Your task to perform on an android device: delete a single message in the gmail app Image 0: 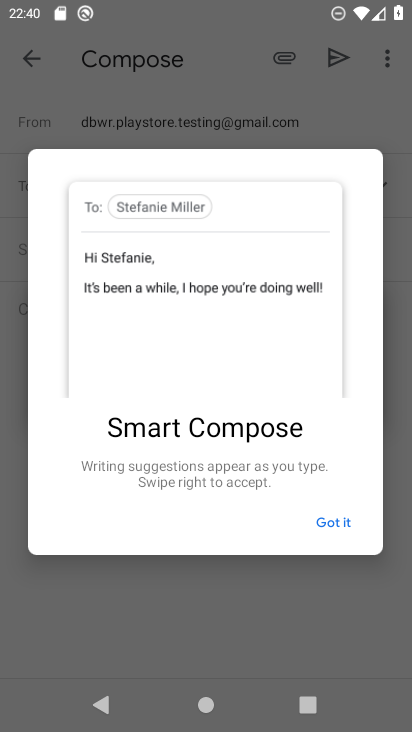
Step 0: press home button
Your task to perform on an android device: delete a single message in the gmail app Image 1: 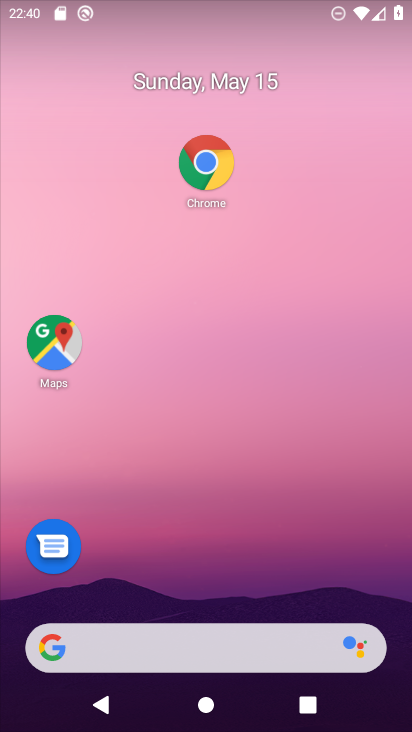
Step 1: drag from (290, 567) to (342, 210)
Your task to perform on an android device: delete a single message in the gmail app Image 2: 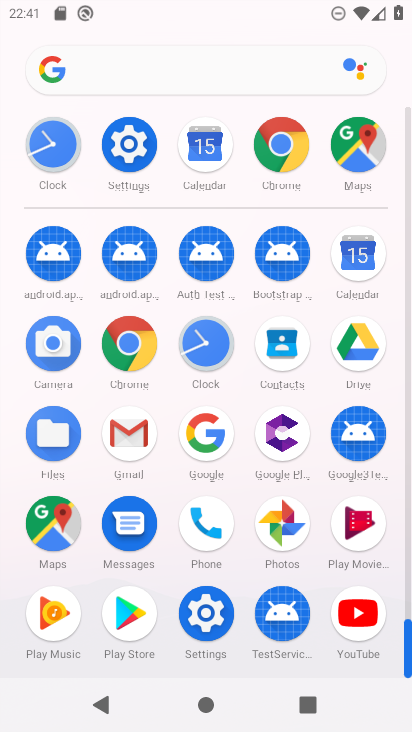
Step 2: drag from (300, 547) to (320, 262)
Your task to perform on an android device: delete a single message in the gmail app Image 3: 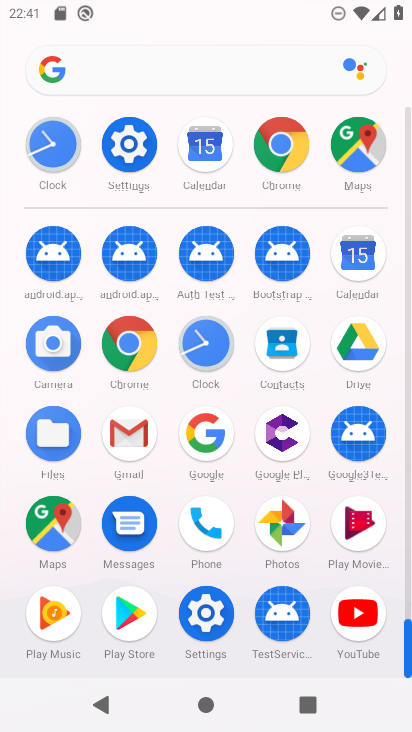
Step 3: click (125, 404)
Your task to perform on an android device: delete a single message in the gmail app Image 4: 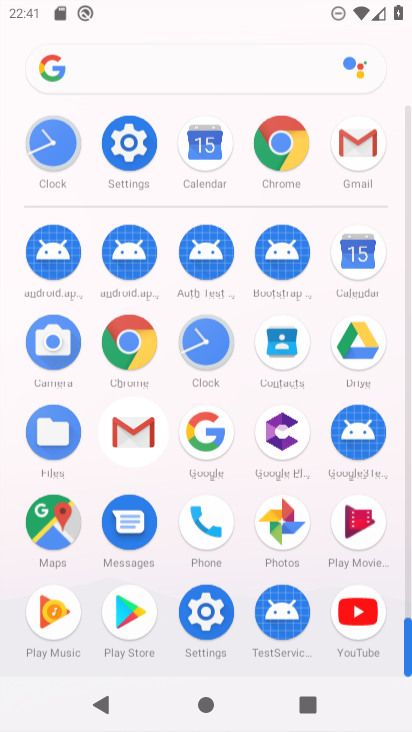
Step 4: click (121, 417)
Your task to perform on an android device: delete a single message in the gmail app Image 5: 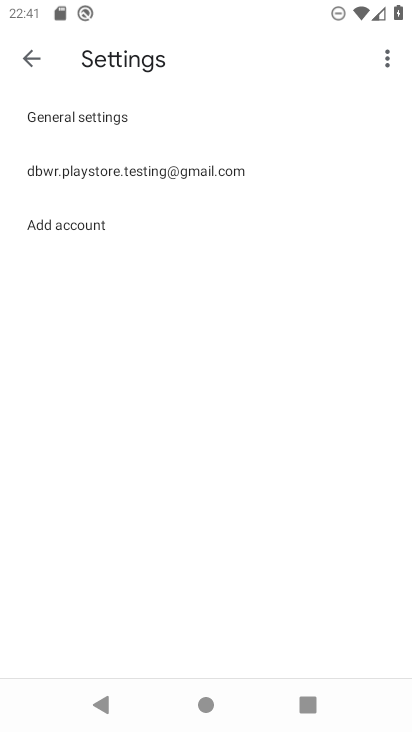
Step 5: click (33, 62)
Your task to perform on an android device: delete a single message in the gmail app Image 6: 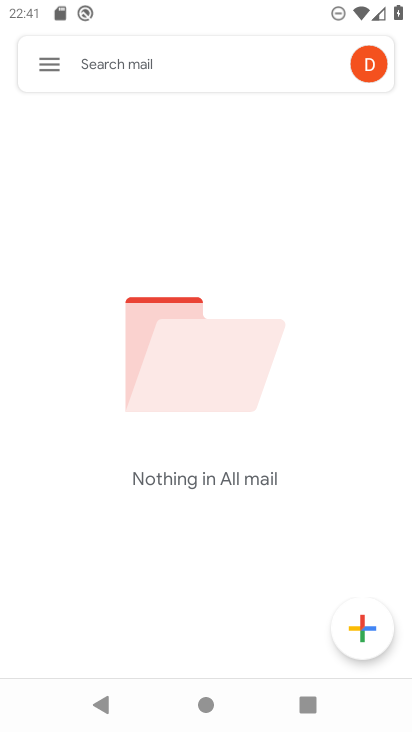
Step 6: click (39, 58)
Your task to perform on an android device: delete a single message in the gmail app Image 7: 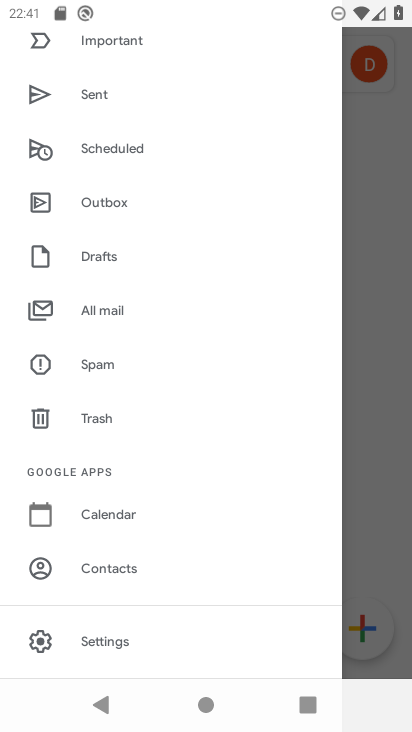
Step 7: click (113, 311)
Your task to perform on an android device: delete a single message in the gmail app Image 8: 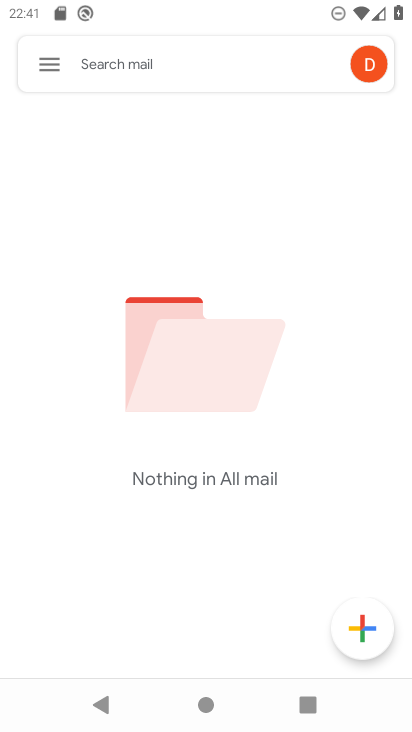
Step 8: task complete